Your task to perform on an android device: choose inbox layout in the gmail app Image 0: 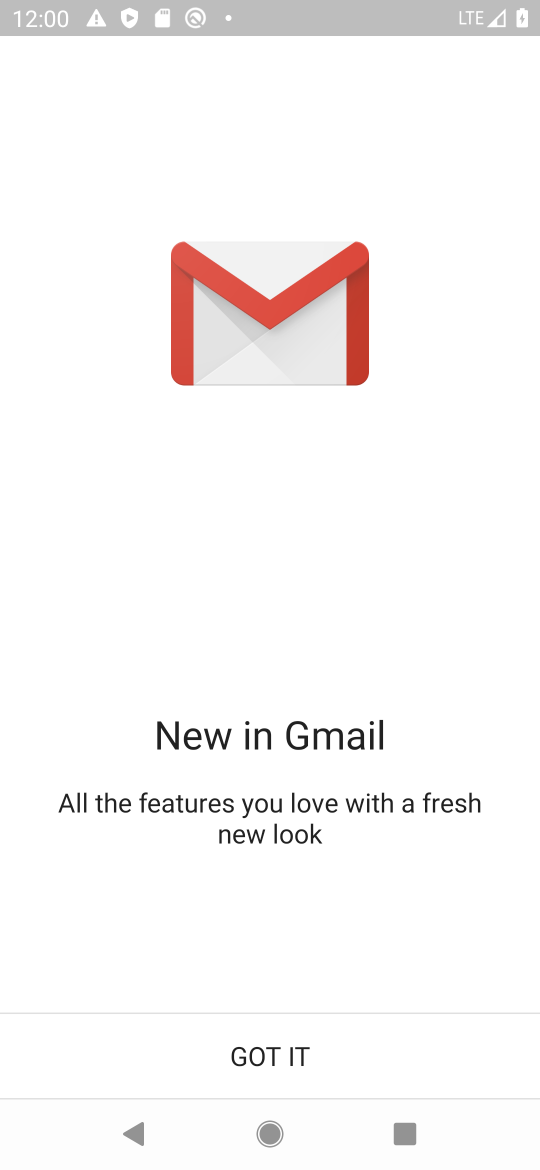
Step 0: press home button
Your task to perform on an android device: choose inbox layout in the gmail app Image 1: 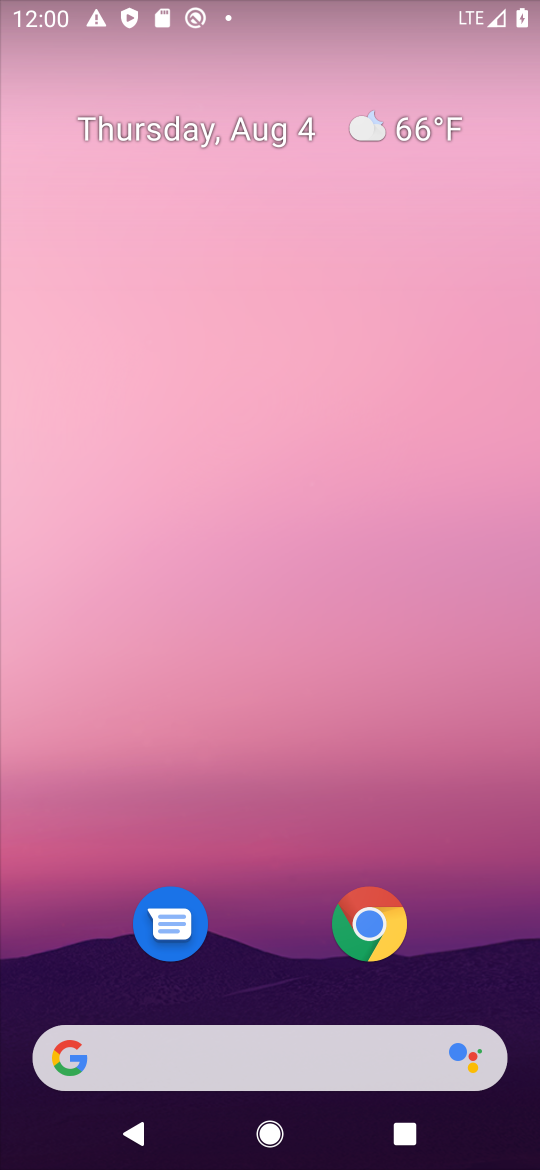
Step 1: task complete